Your task to perform on an android device: Open internet settings Image 0: 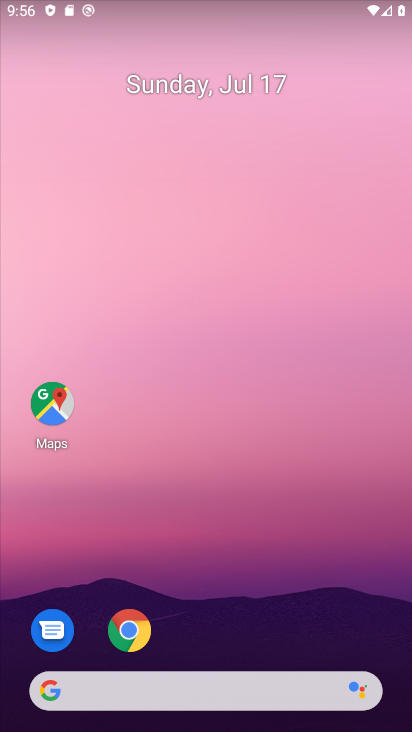
Step 0: drag from (340, 603) to (363, 48)
Your task to perform on an android device: Open internet settings Image 1: 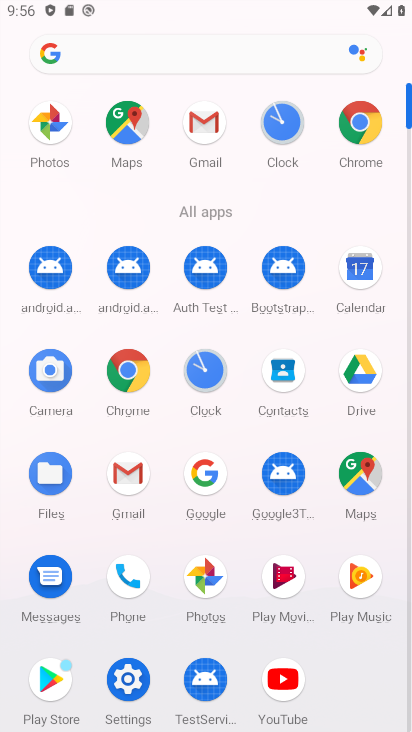
Step 1: click (132, 680)
Your task to perform on an android device: Open internet settings Image 2: 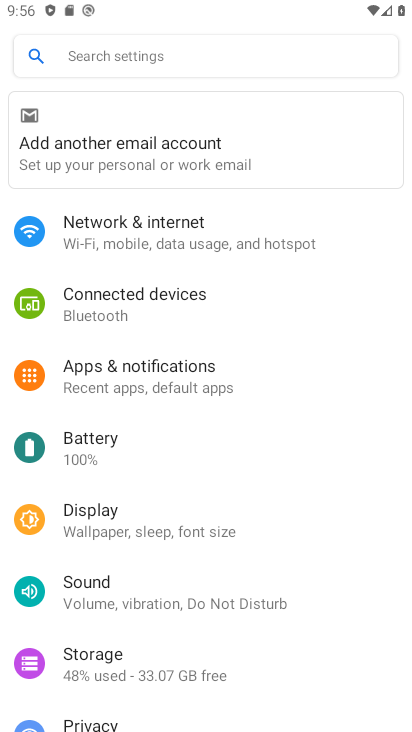
Step 2: drag from (338, 535) to (351, 430)
Your task to perform on an android device: Open internet settings Image 3: 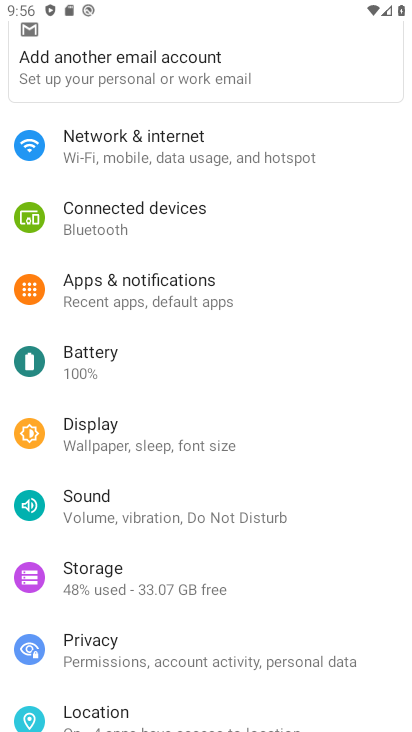
Step 3: drag from (326, 563) to (347, 439)
Your task to perform on an android device: Open internet settings Image 4: 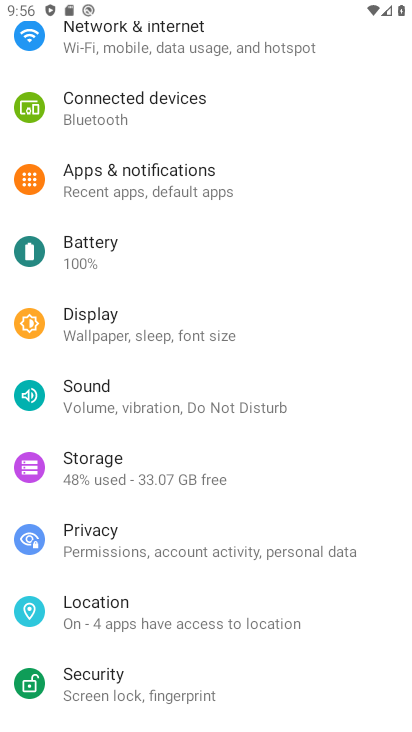
Step 4: drag from (331, 600) to (339, 355)
Your task to perform on an android device: Open internet settings Image 5: 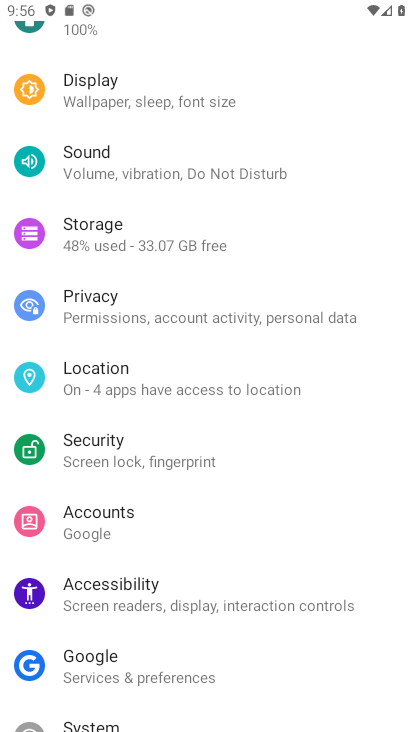
Step 5: drag from (342, 271) to (342, 447)
Your task to perform on an android device: Open internet settings Image 6: 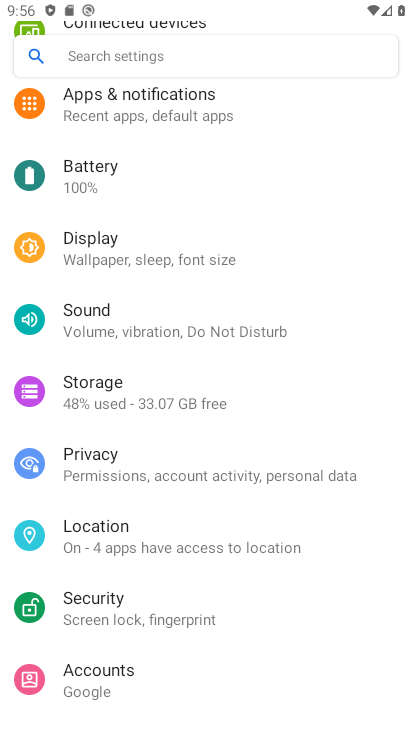
Step 6: drag from (347, 222) to (344, 424)
Your task to perform on an android device: Open internet settings Image 7: 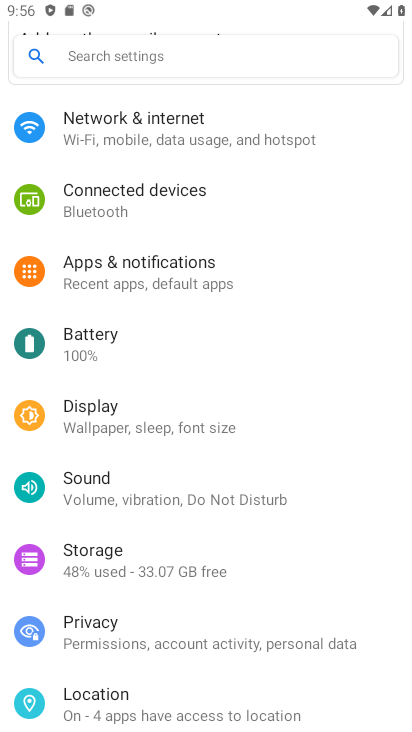
Step 7: drag from (344, 224) to (342, 456)
Your task to perform on an android device: Open internet settings Image 8: 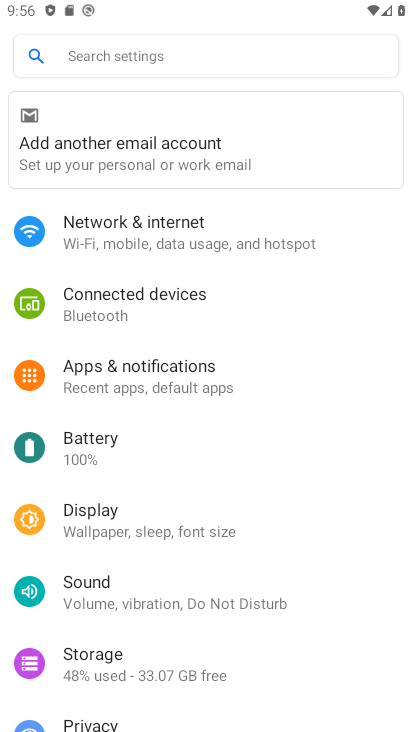
Step 8: drag from (349, 522) to (354, 337)
Your task to perform on an android device: Open internet settings Image 9: 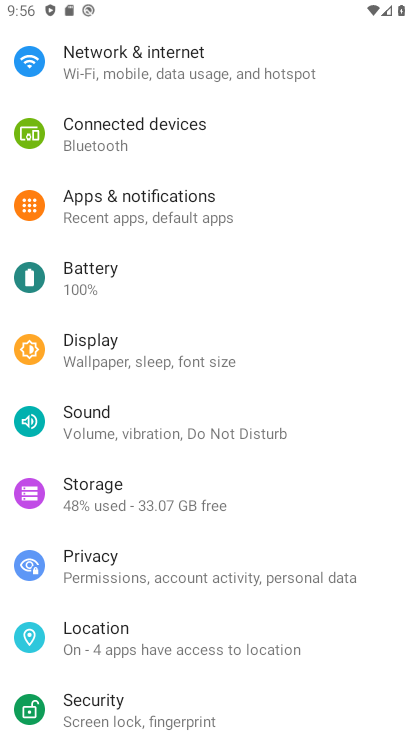
Step 9: drag from (331, 538) to (344, 345)
Your task to perform on an android device: Open internet settings Image 10: 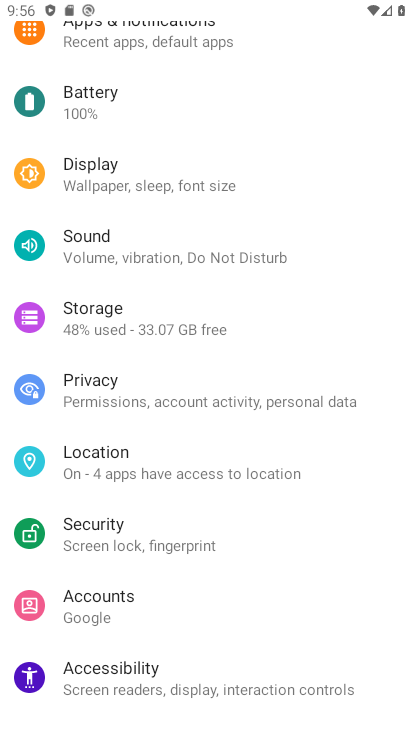
Step 10: drag from (347, 206) to (348, 373)
Your task to perform on an android device: Open internet settings Image 11: 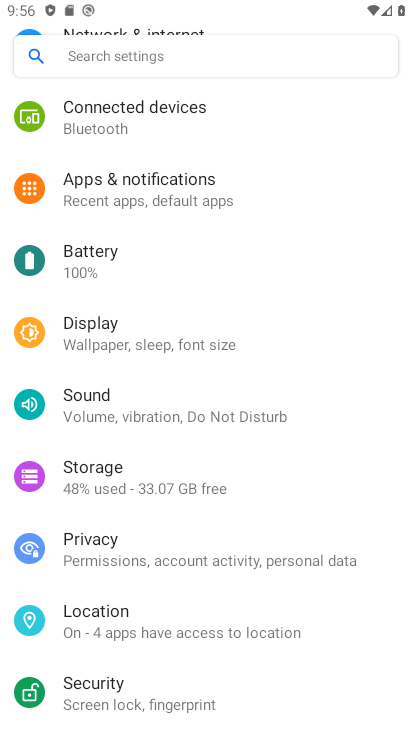
Step 11: drag from (347, 188) to (348, 392)
Your task to perform on an android device: Open internet settings Image 12: 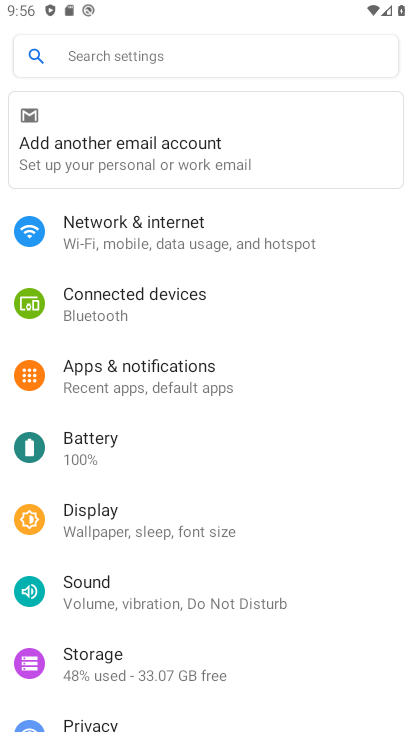
Step 12: click (230, 238)
Your task to perform on an android device: Open internet settings Image 13: 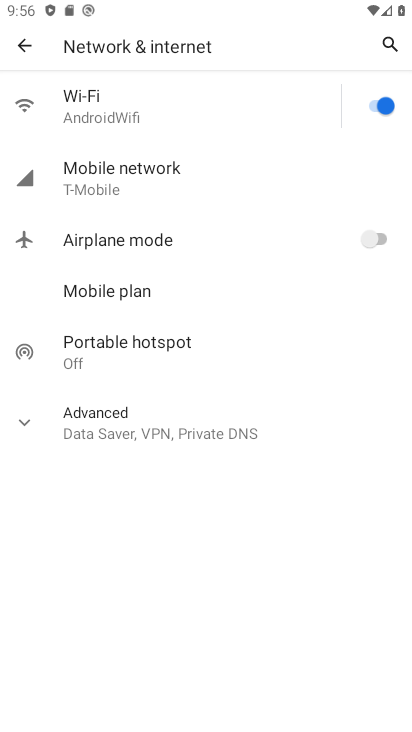
Step 13: task complete